Your task to perform on an android device: check android version Image 0: 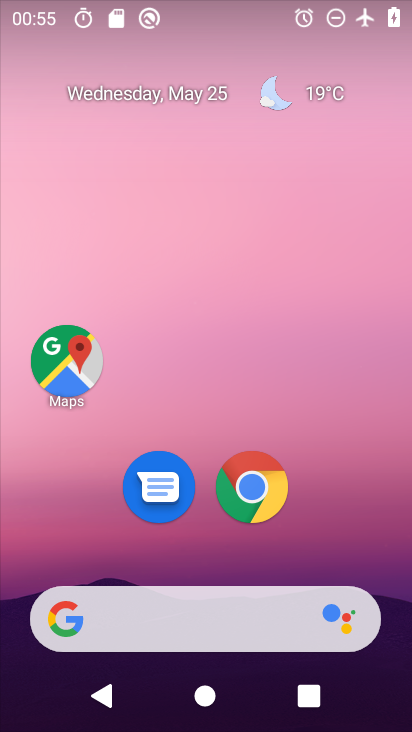
Step 0: drag from (391, 578) to (364, 29)
Your task to perform on an android device: check android version Image 1: 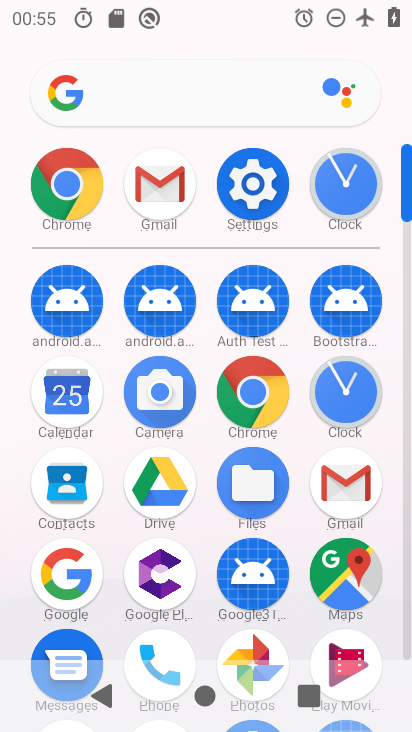
Step 1: click (257, 188)
Your task to perform on an android device: check android version Image 2: 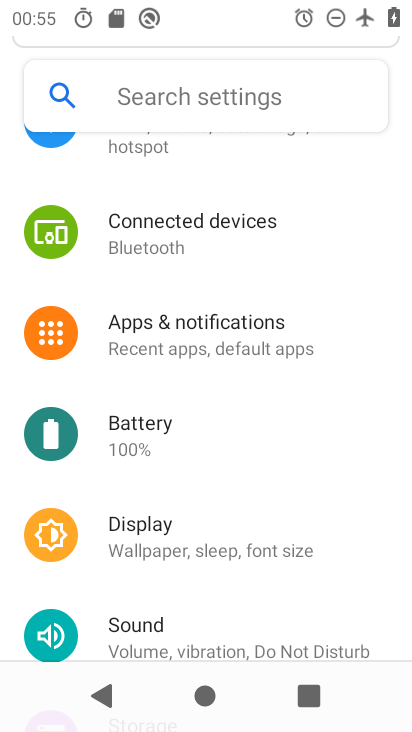
Step 2: drag from (281, 579) to (265, 87)
Your task to perform on an android device: check android version Image 3: 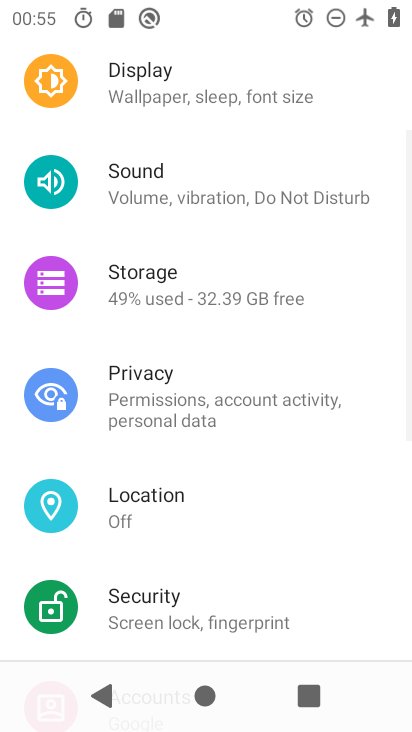
Step 3: drag from (202, 548) to (227, 119)
Your task to perform on an android device: check android version Image 4: 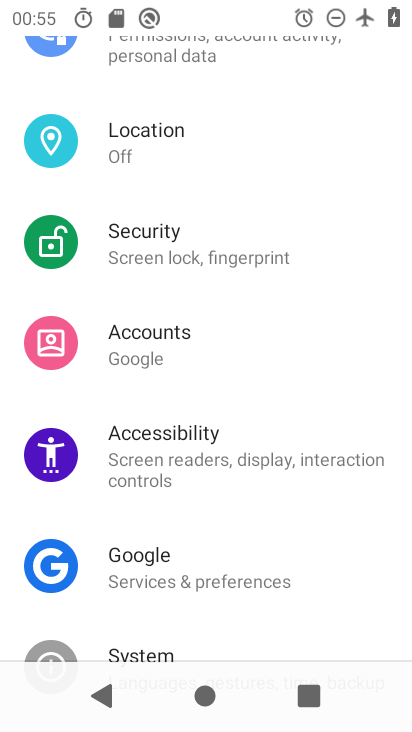
Step 4: drag from (198, 558) to (196, 130)
Your task to perform on an android device: check android version Image 5: 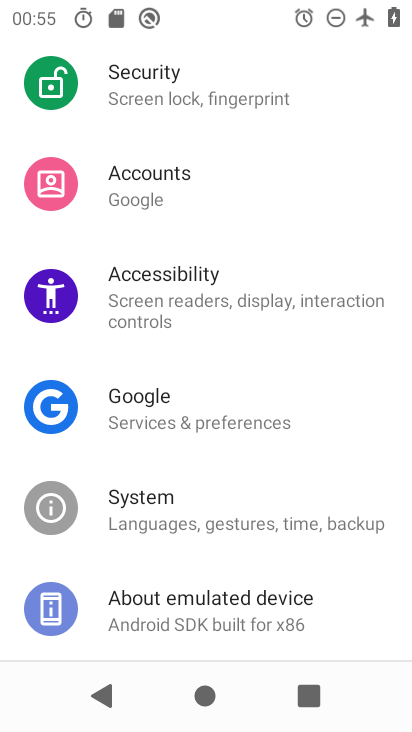
Step 5: drag from (272, 581) to (272, 445)
Your task to perform on an android device: check android version Image 6: 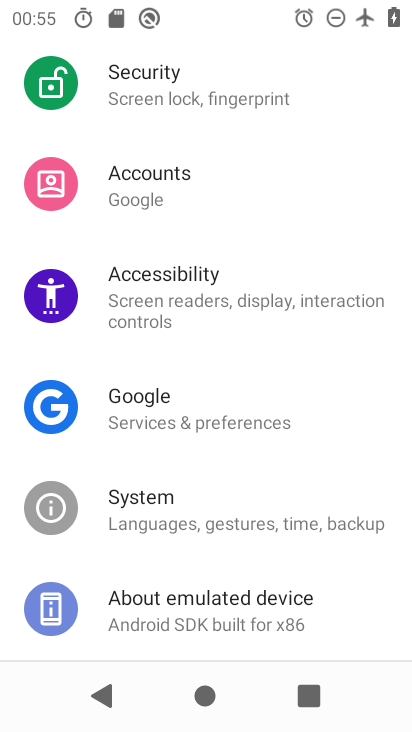
Step 6: click (184, 607)
Your task to perform on an android device: check android version Image 7: 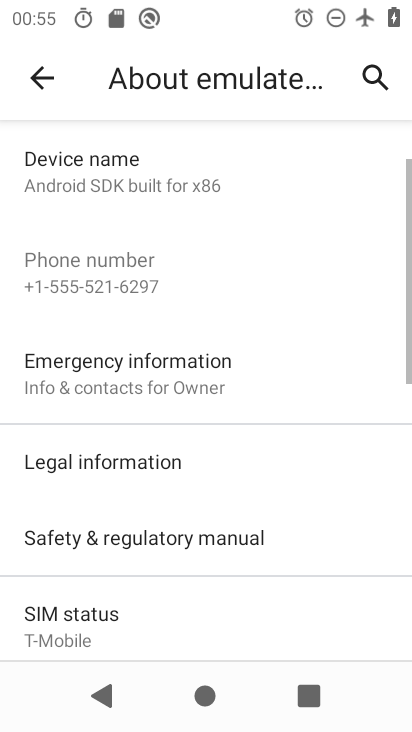
Step 7: drag from (182, 589) to (191, 227)
Your task to perform on an android device: check android version Image 8: 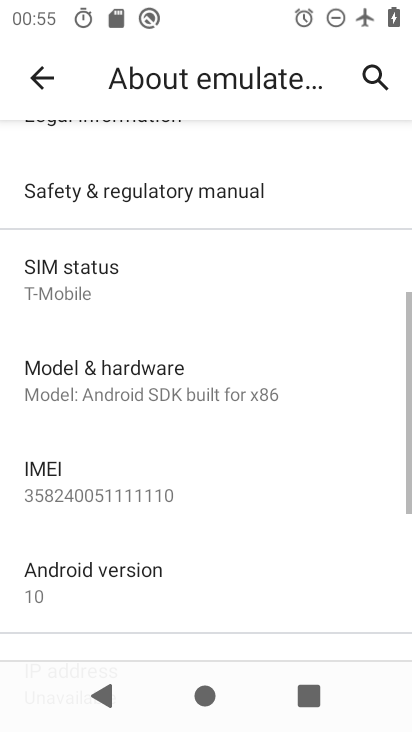
Step 8: click (97, 568)
Your task to perform on an android device: check android version Image 9: 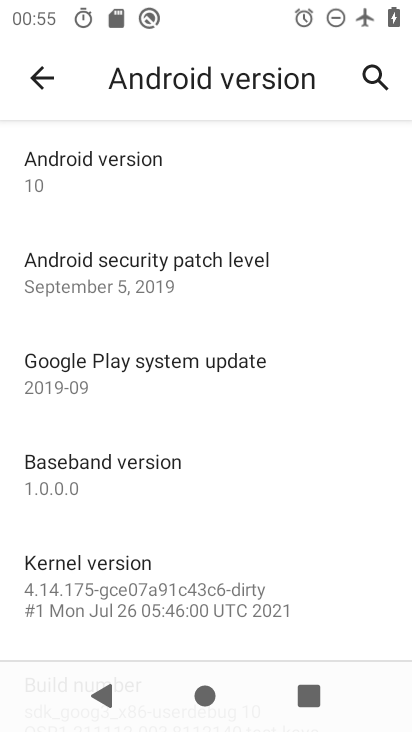
Step 9: task complete